Your task to perform on an android device: manage bookmarks in the chrome app Image 0: 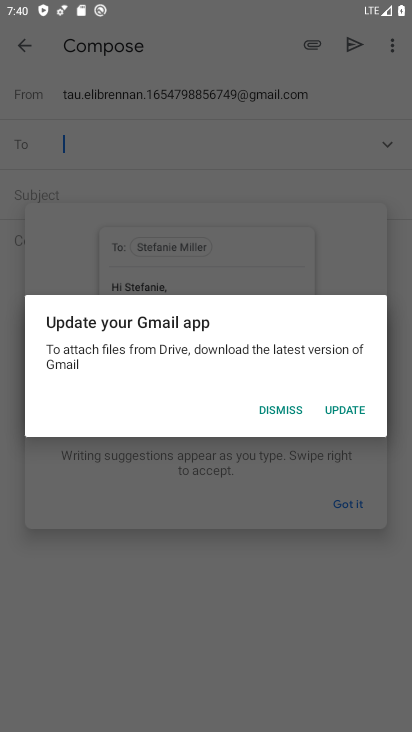
Step 0: press home button
Your task to perform on an android device: manage bookmarks in the chrome app Image 1: 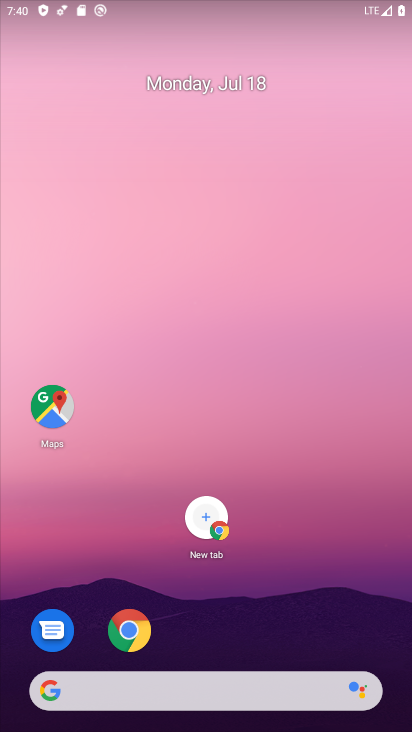
Step 1: click (119, 619)
Your task to perform on an android device: manage bookmarks in the chrome app Image 2: 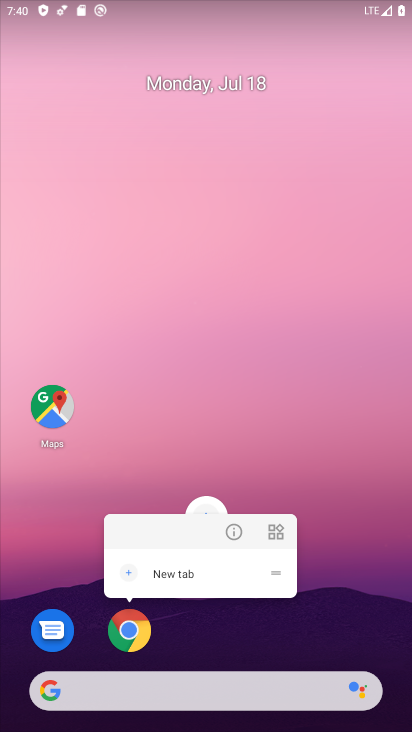
Step 2: click (126, 632)
Your task to perform on an android device: manage bookmarks in the chrome app Image 3: 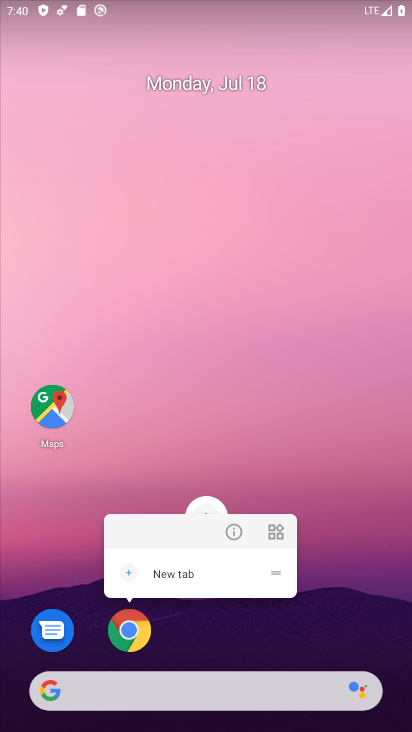
Step 3: drag from (174, 678) to (308, 127)
Your task to perform on an android device: manage bookmarks in the chrome app Image 4: 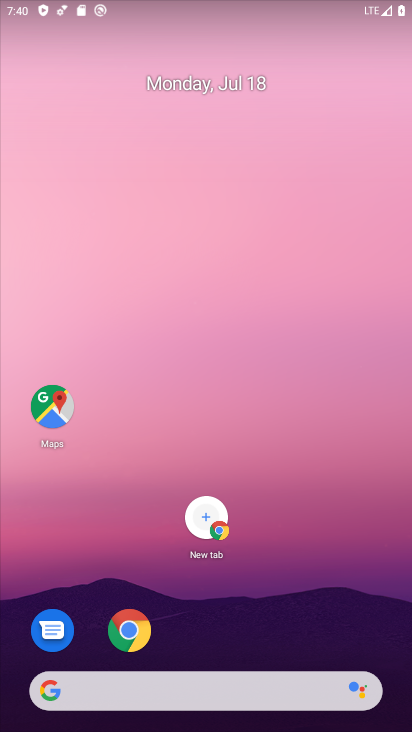
Step 4: drag from (173, 677) to (250, 87)
Your task to perform on an android device: manage bookmarks in the chrome app Image 5: 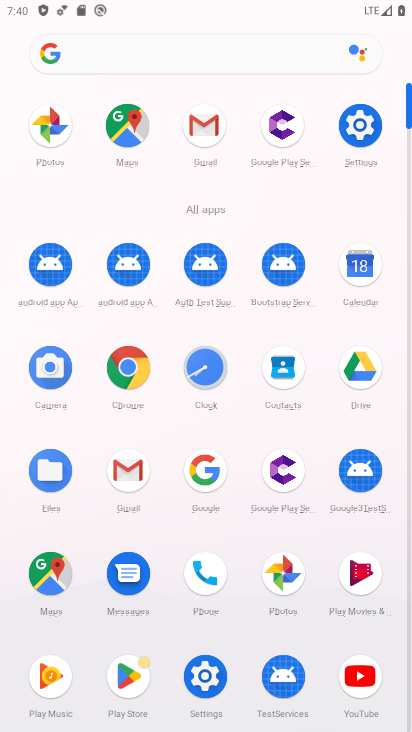
Step 5: click (121, 363)
Your task to perform on an android device: manage bookmarks in the chrome app Image 6: 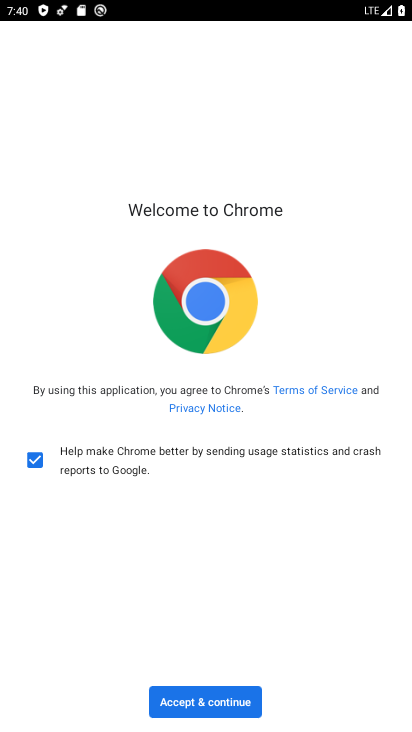
Step 6: click (183, 692)
Your task to perform on an android device: manage bookmarks in the chrome app Image 7: 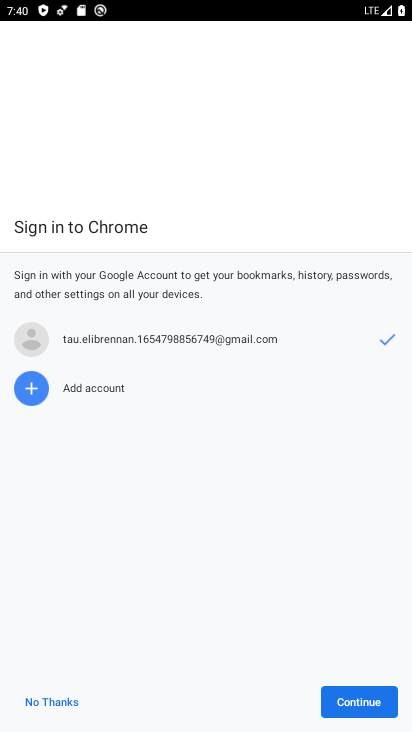
Step 7: click (347, 707)
Your task to perform on an android device: manage bookmarks in the chrome app Image 8: 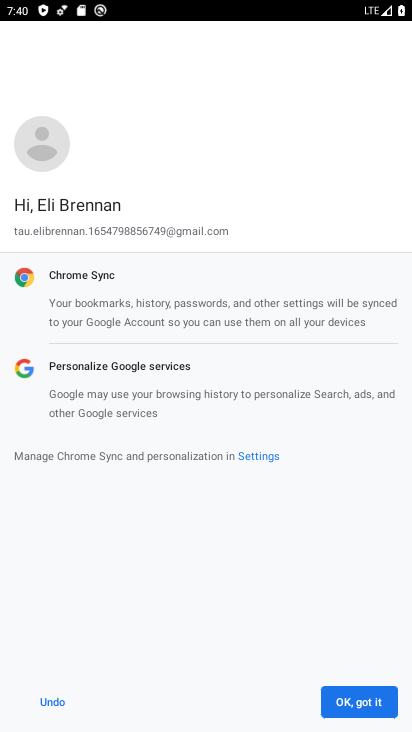
Step 8: click (347, 707)
Your task to perform on an android device: manage bookmarks in the chrome app Image 9: 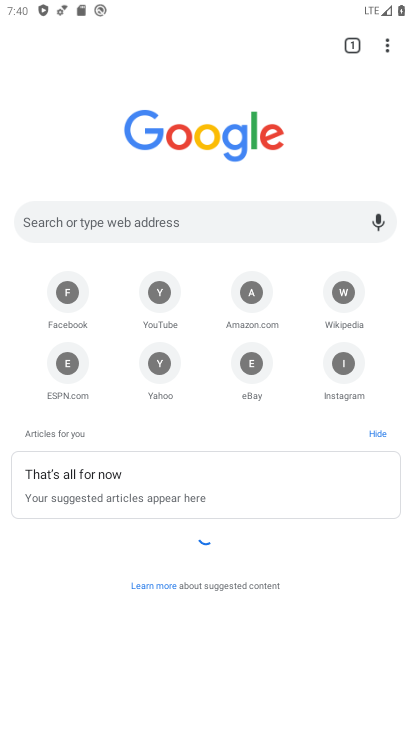
Step 9: click (385, 48)
Your task to perform on an android device: manage bookmarks in the chrome app Image 10: 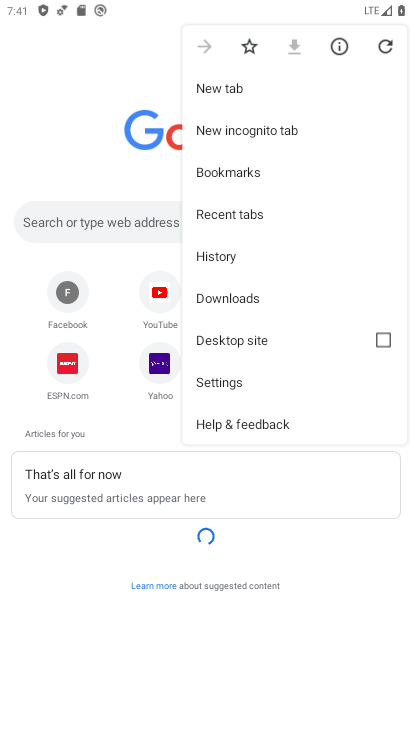
Step 10: click (238, 159)
Your task to perform on an android device: manage bookmarks in the chrome app Image 11: 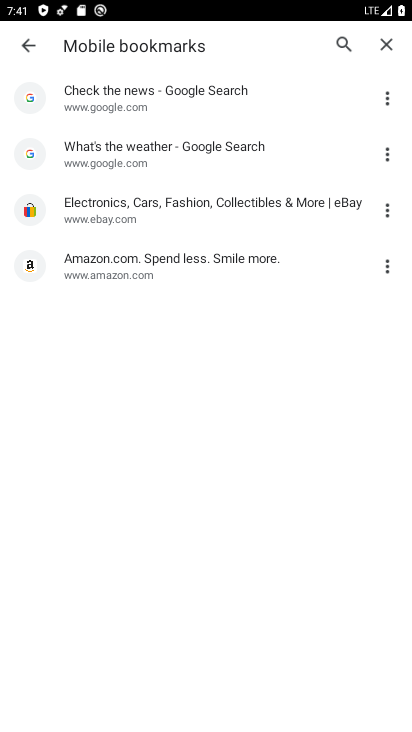
Step 11: task complete